Your task to perform on an android device: set an alarm Image 0: 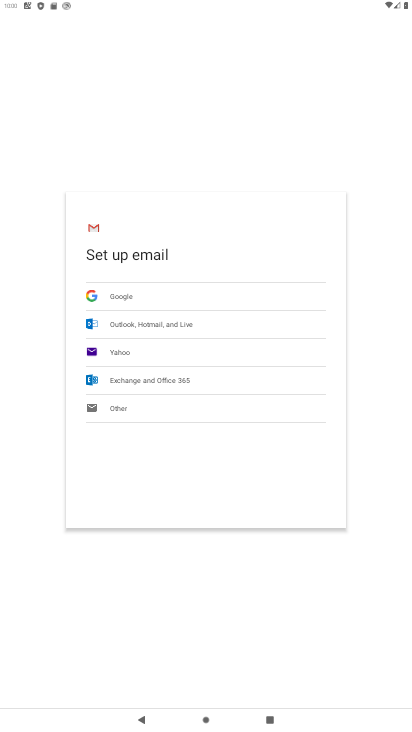
Step 0: press home button
Your task to perform on an android device: set an alarm Image 1: 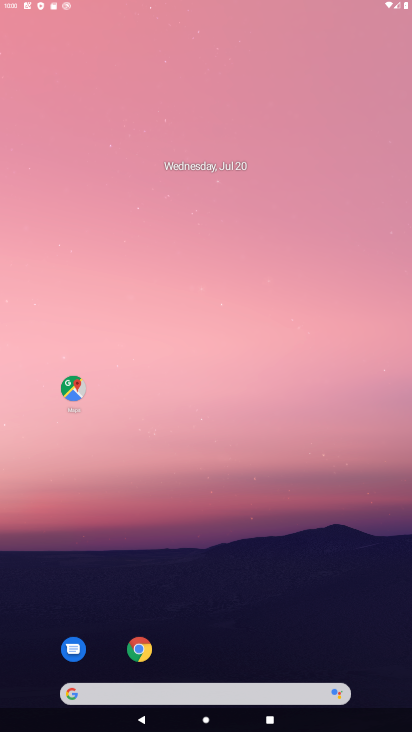
Step 1: task complete